Your task to perform on an android device: Open maps Image 0: 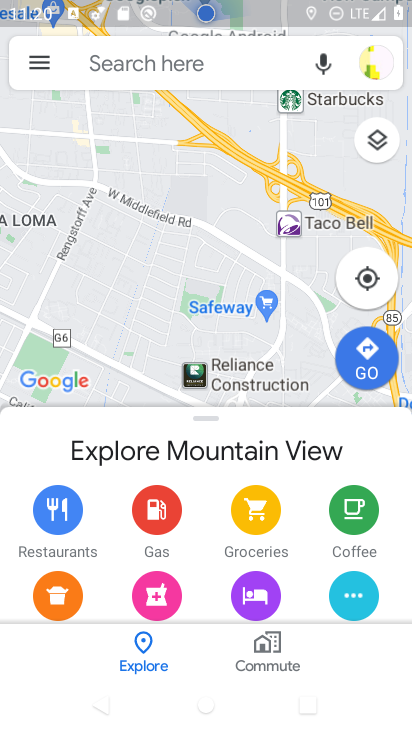
Step 0: task complete